Your task to perform on an android device: Go to Yahoo.com Image 0: 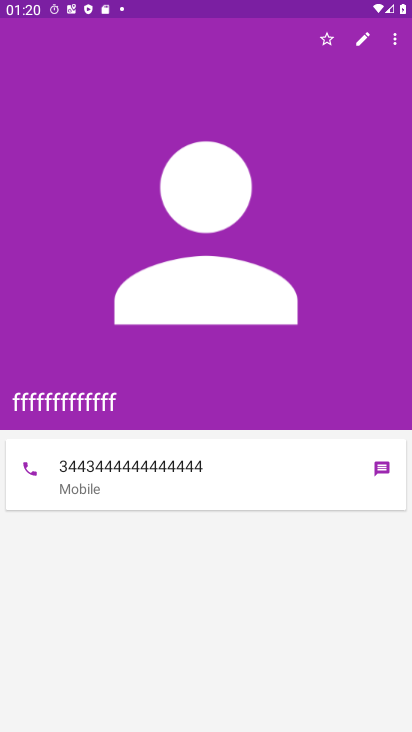
Step 0: press home button
Your task to perform on an android device: Go to Yahoo.com Image 1: 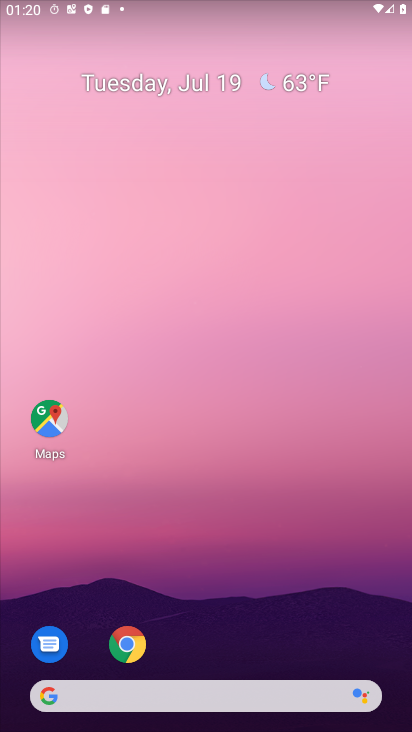
Step 1: drag from (210, 727) to (183, 217)
Your task to perform on an android device: Go to Yahoo.com Image 2: 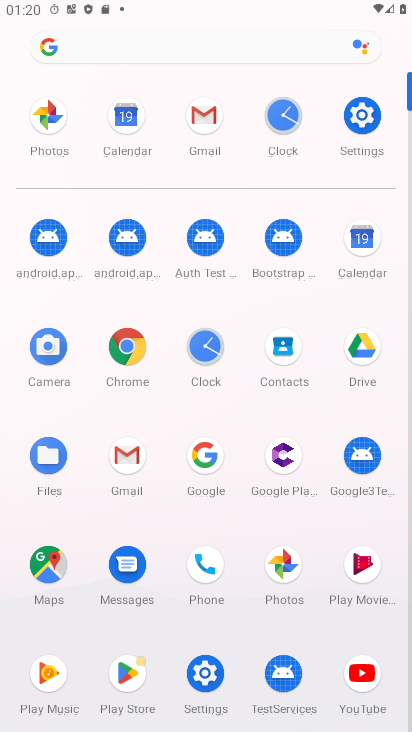
Step 2: click (123, 346)
Your task to perform on an android device: Go to Yahoo.com Image 3: 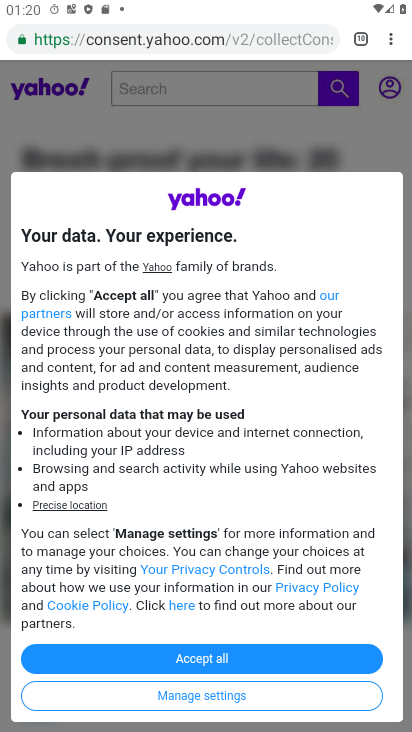
Step 3: click (194, 659)
Your task to perform on an android device: Go to Yahoo.com Image 4: 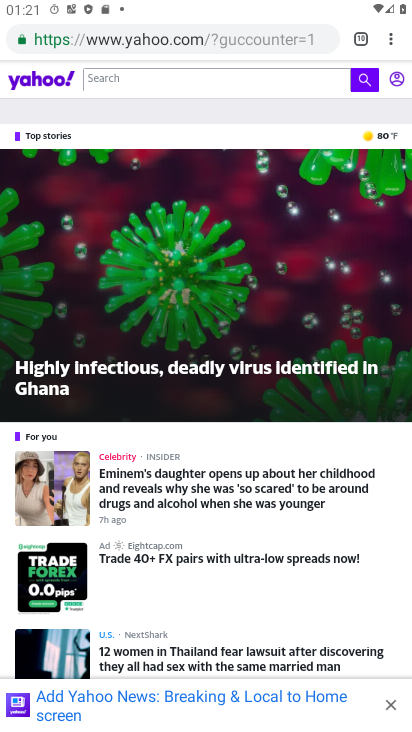
Step 4: task complete